Your task to perform on an android device: toggle show notifications on the lock screen Image 0: 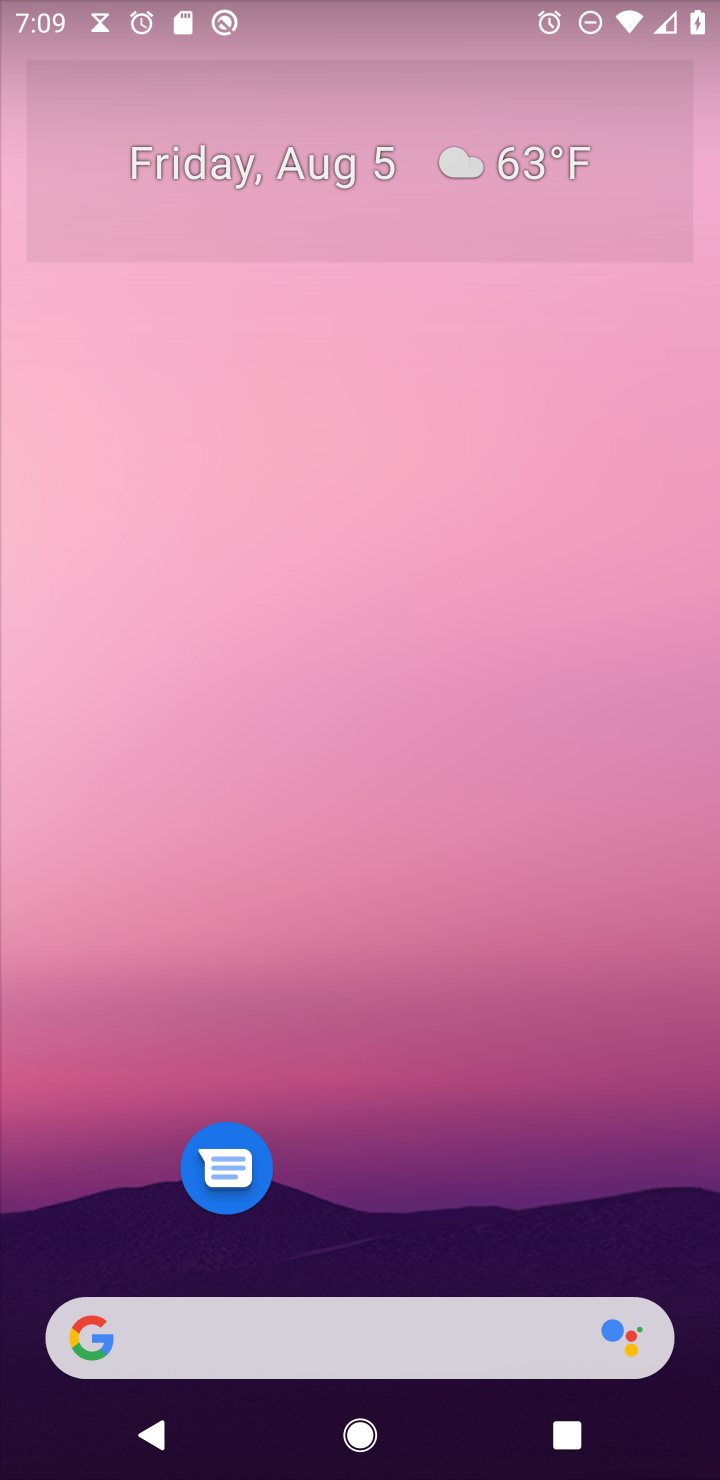
Step 0: press home button
Your task to perform on an android device: toggle show notifications on the lock screen Image 1: 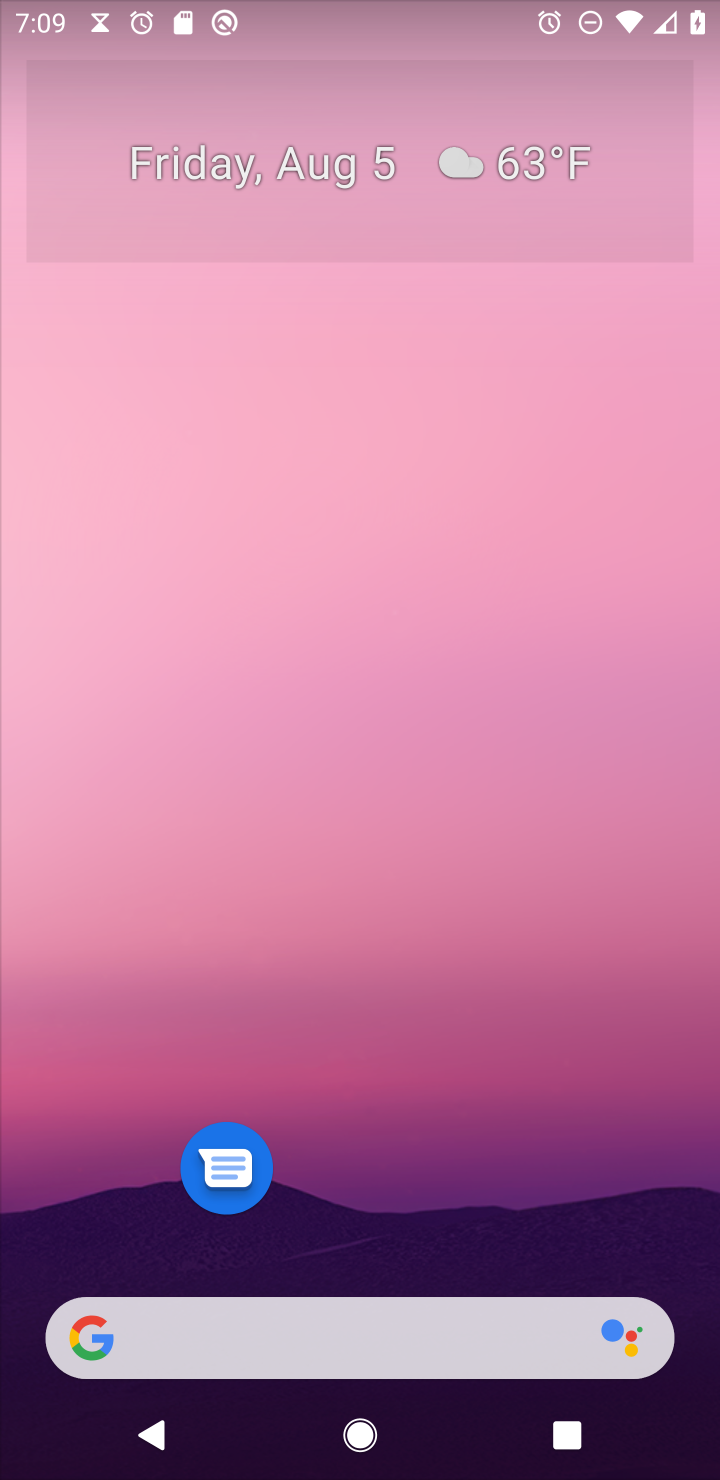
Step 1: drag from (513, 1181) to (454, 37)
Your task to perform on an android device: toggle show notifications on the lock screen Image 2: 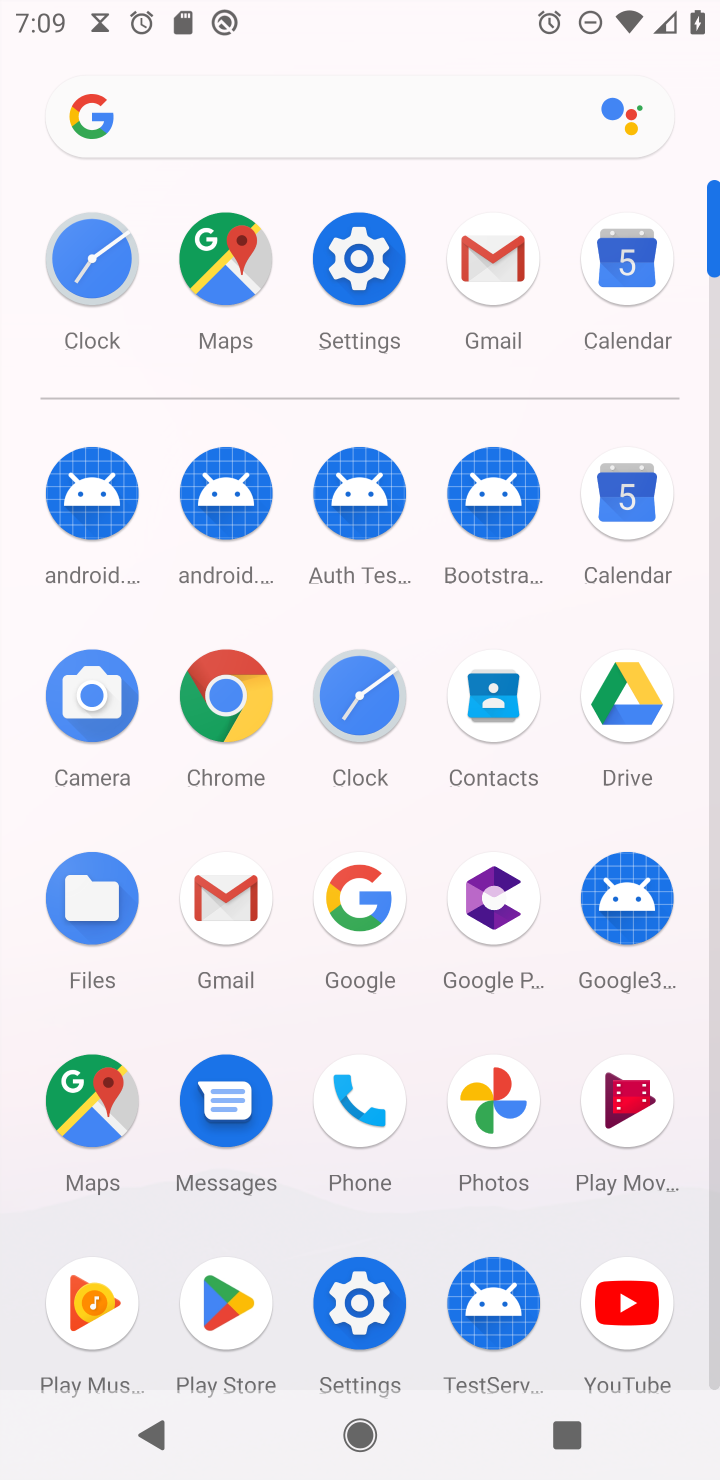
Step 2: click (344, 260)
Your task to perform on an android device: toggle show notifications on the lock screen Image 3: 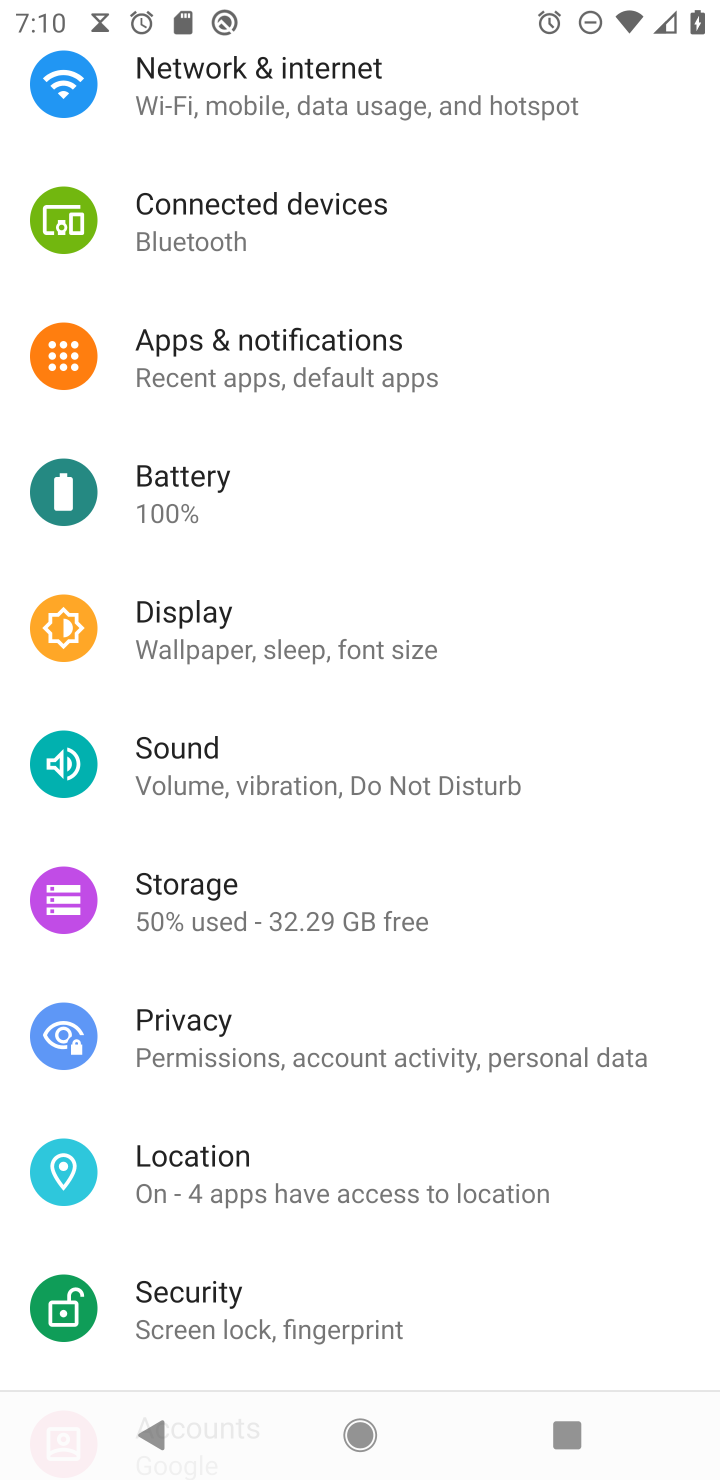
Step 3: drag from (519, 291) to (495, 684)
Your task to perform on an android device: toggle show notifications on the lock screen Image 4: 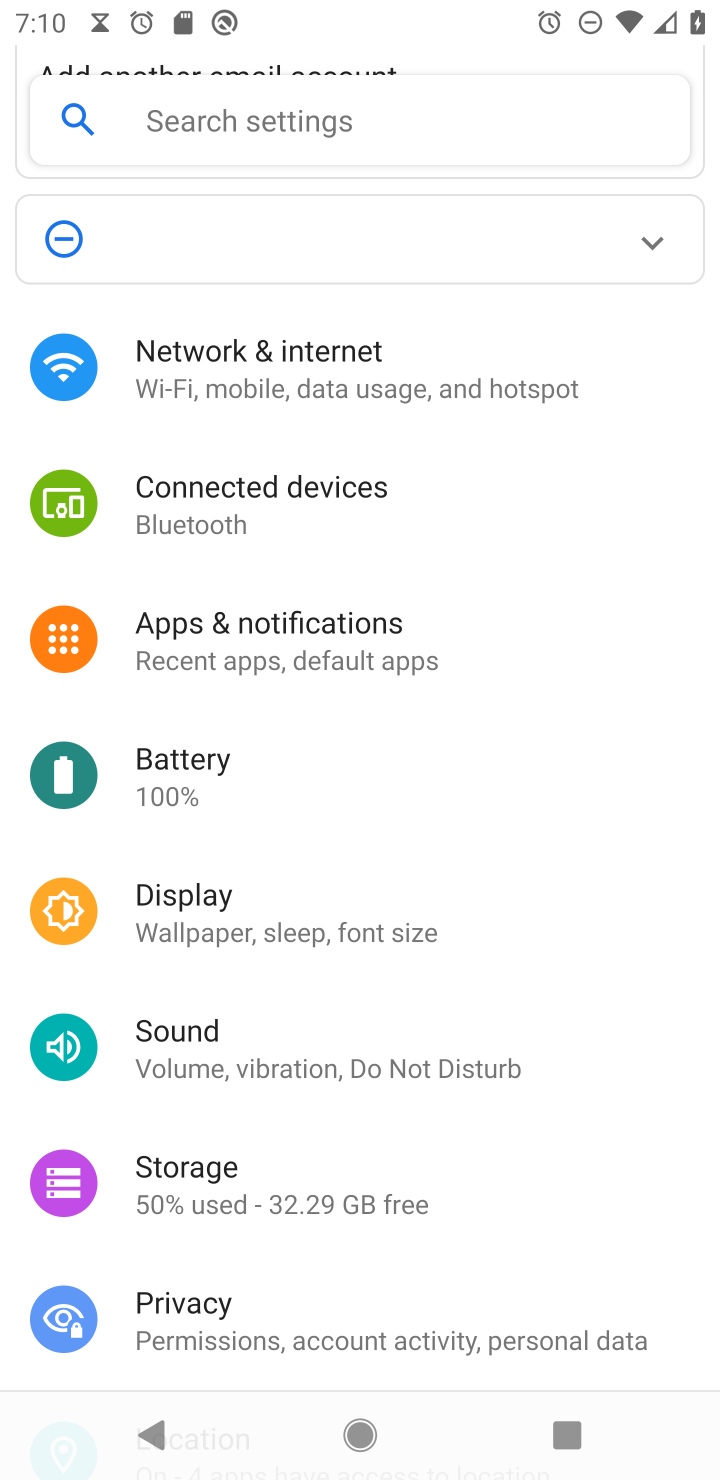
Step 4: click (292, 634)
Your task to perform on an android device: toggle show notifications on the lock screen Image 5: 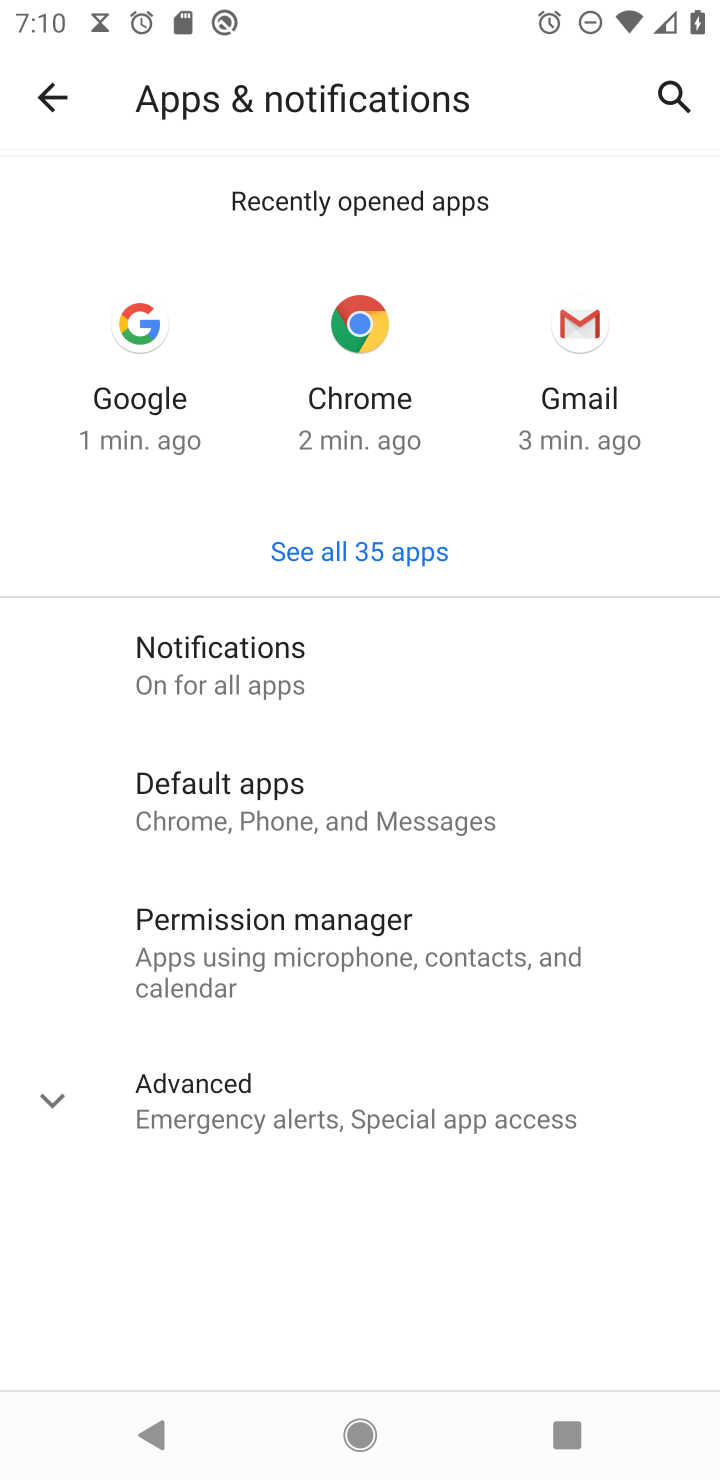
Step 5: click (253, 660)
Your task to perform on an android device: toggle show notifications on the lock screen Image 6: 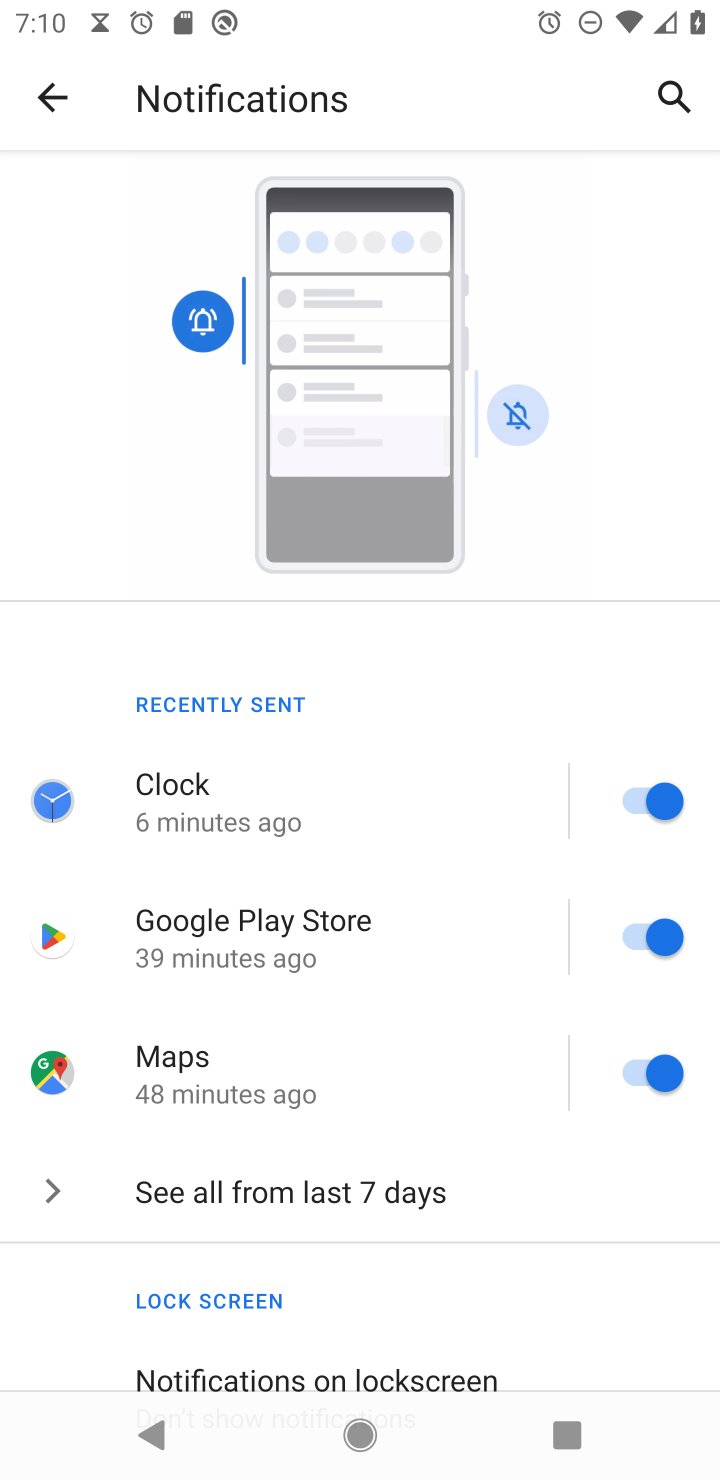
Step 6: drag from (483, 705) to (381, 11)
Your task to perform on an android device: toggle show notifications on the lock screen Image 7: 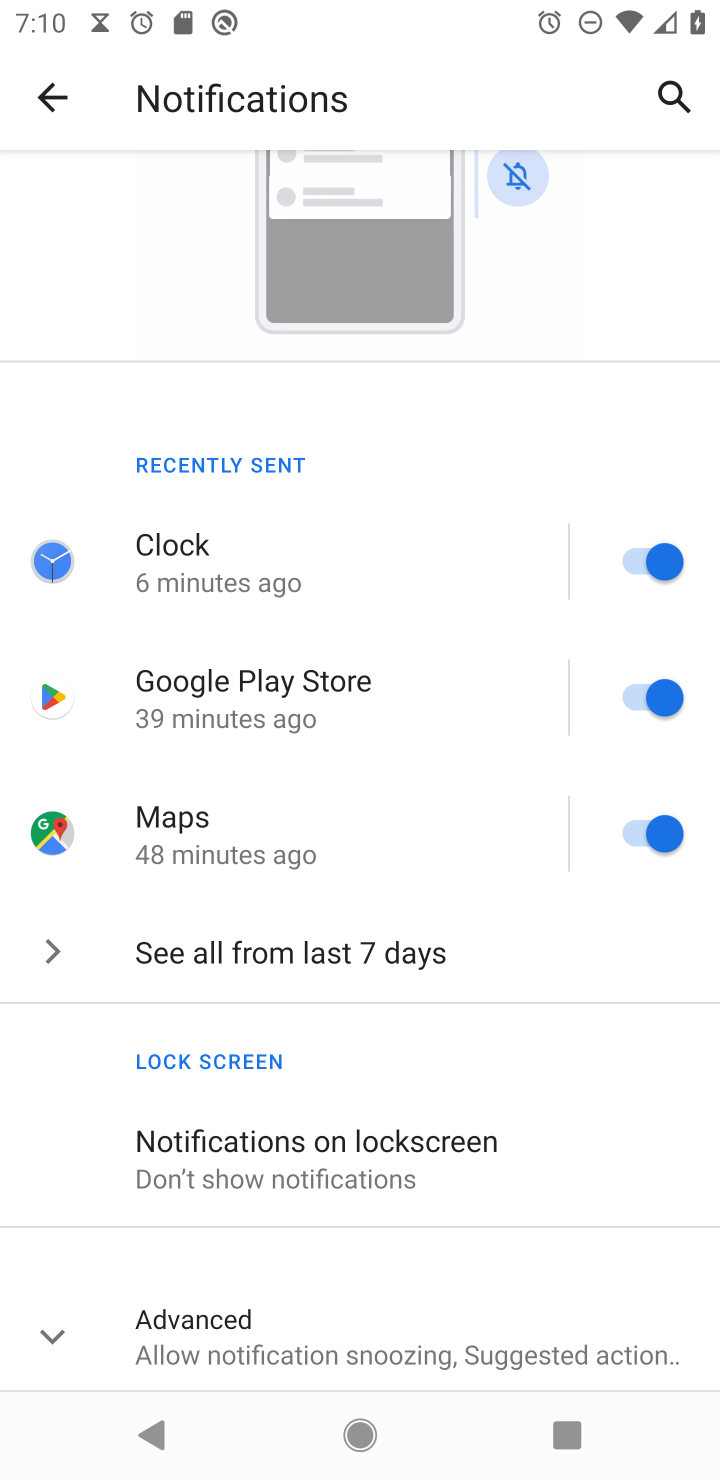
Step 7: click (266, 1168)
Your task to perform on an android device: toggle show notifications on the lock screen Image 8: 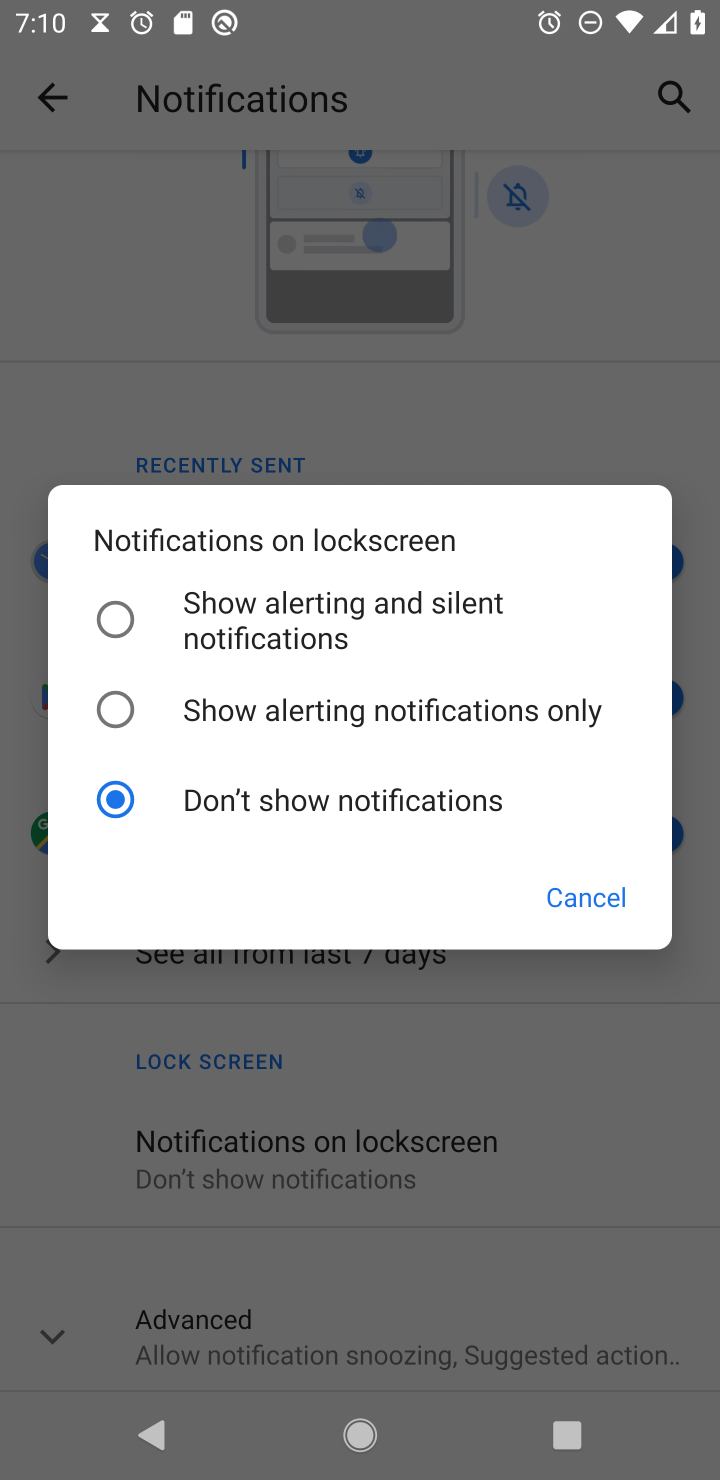
Step 8: click (109, 614)
Your task to perform on an android device: toggle show notifications on the lock screen Image 9: 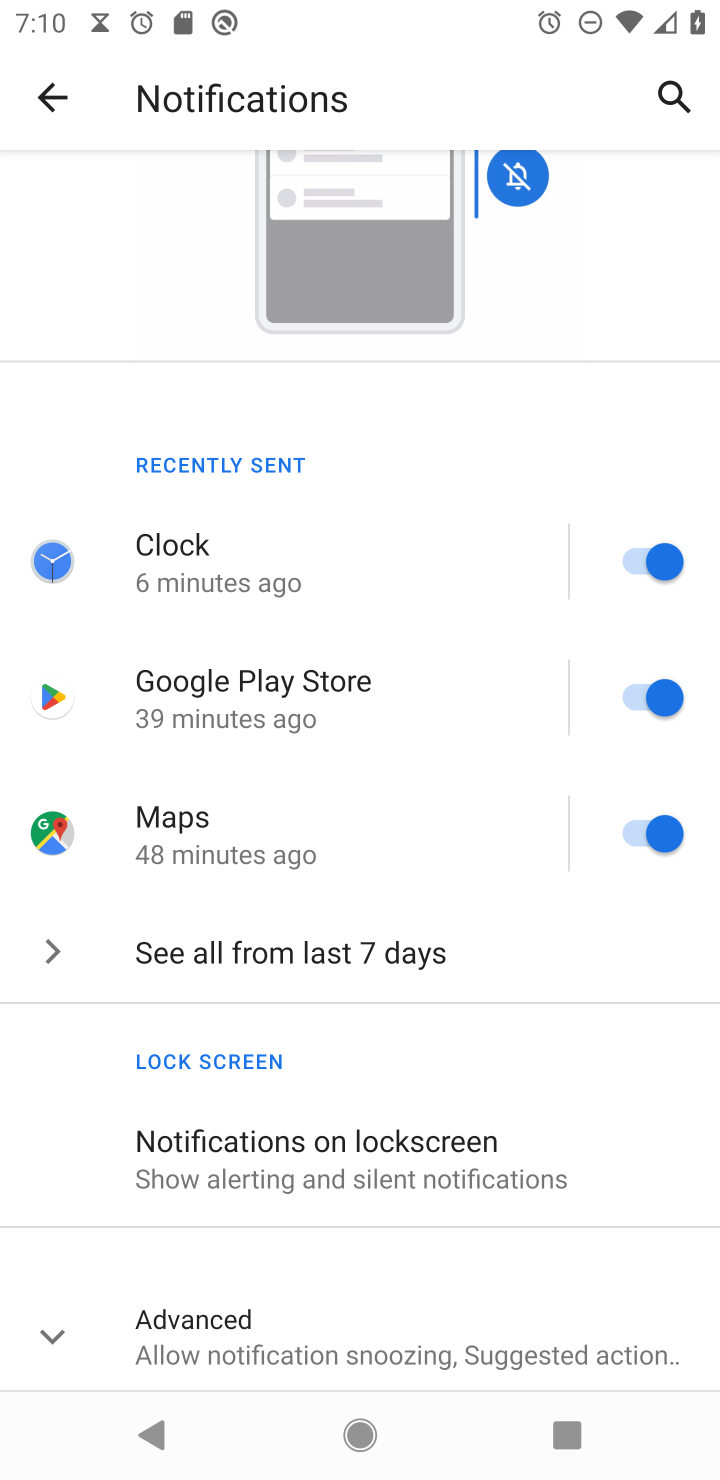
Step 9: task complete